Your task to perform on an android device: turn pop-ups on in chrome Image 0: 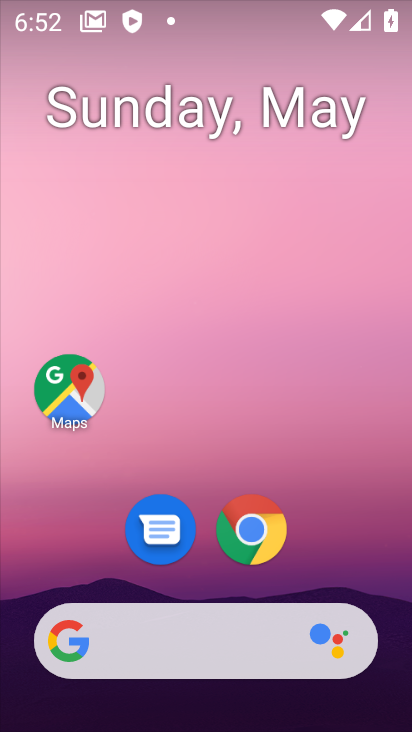
Step 0: click (261, 522)
Your task to perform on an android device: turn pop-ups on in chrome Image 1: 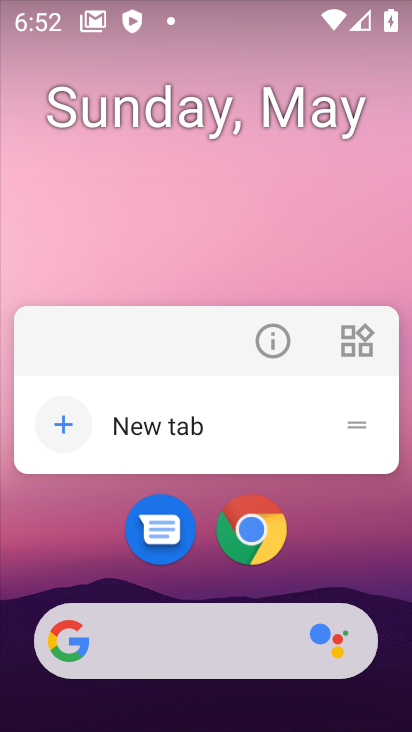
Step 1: click (253, 523)
Your task to perform on an android device: turn pop-ups on in chrome Image 2: 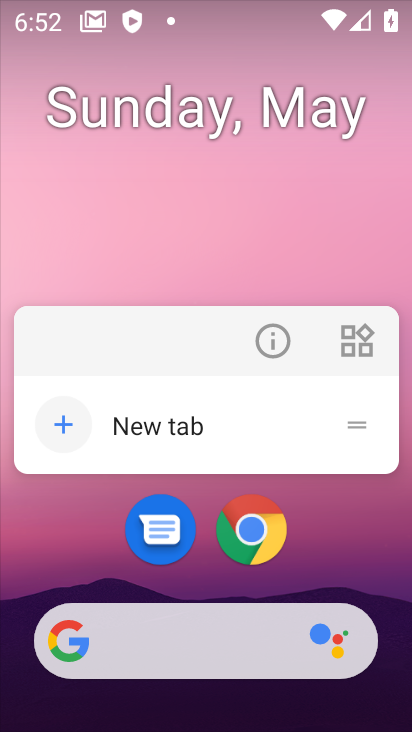
Step 2: click (290, 334)
Your task to perform on an android device: turn pop-ups on in chrome Image 3: 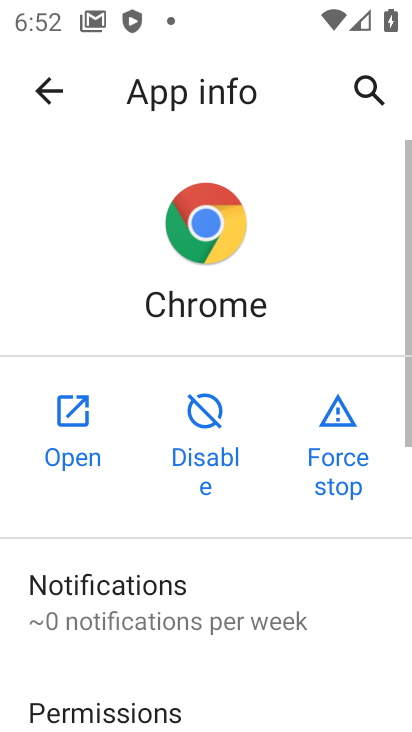
Step 3: click (87, 455)
Your task to perform on an android device: turn pop-ups on in chrome Image 4: 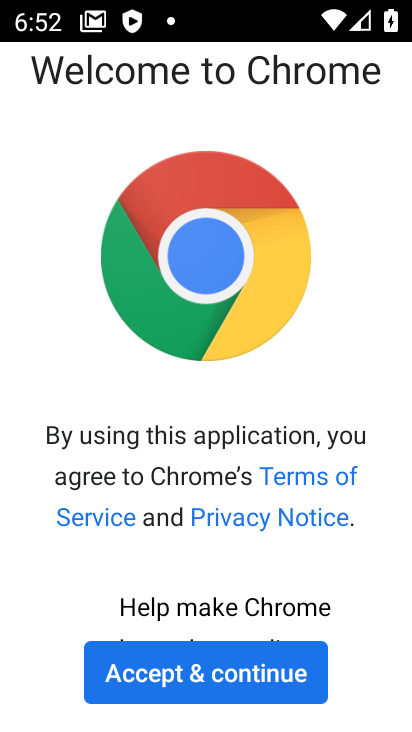
Step 4: click (185, 659)
Your task to perform on an android device: turn pop-ups on in chrome Image 5: 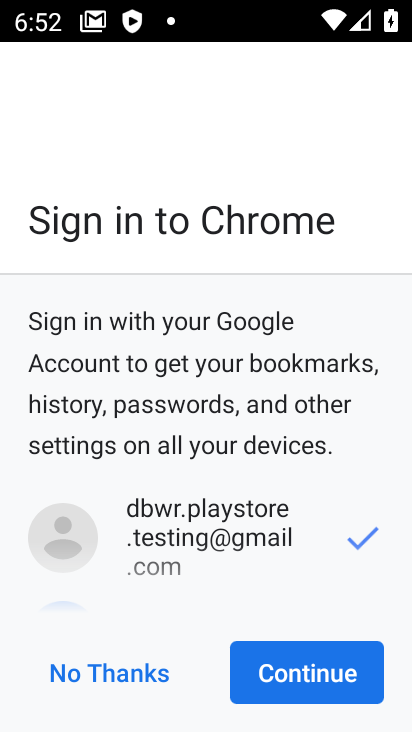
Step 5: click (345, 683)
Your task to perform on an android device: turn pop-ups on in chrome Image 6: 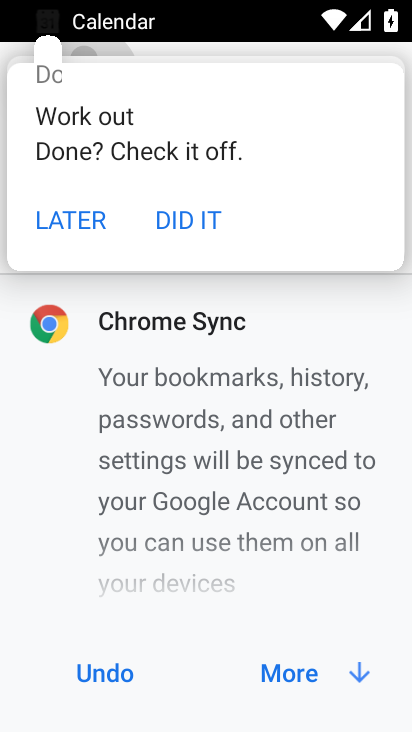
Step 6: click (292, 683)
Your task to perform on an android device: turn pop-ups on in chrome Image 7: 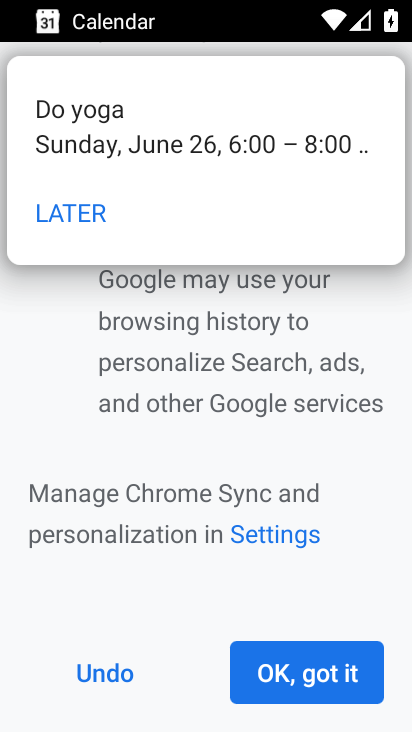
Step 7: click (292, 681)
Your task to perform on an android device: turn pop-ups on in chrome Image 8: 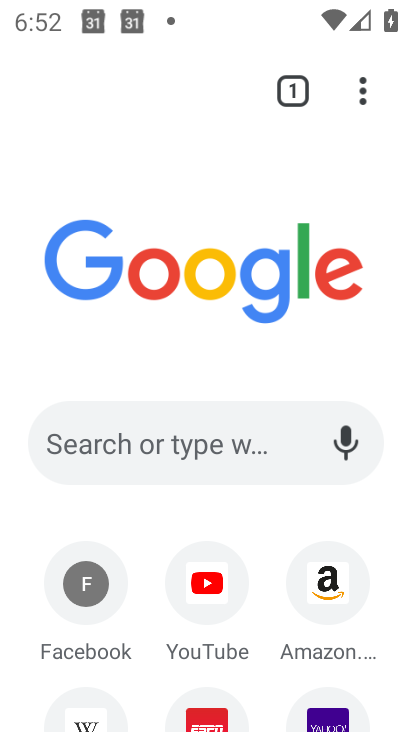
Step 8: click (367, 83)
Your task to perform on an android device: turn pop-ups on in chrome Image 9: 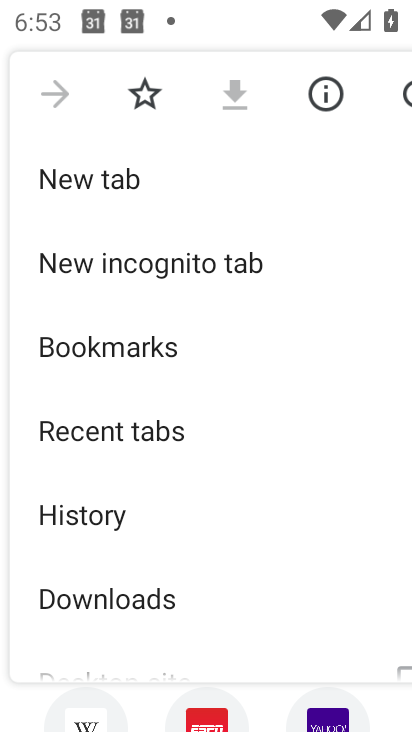
Step 9: drag from (195, 606) to (240, 347)
Your task to perform on an android device: turn pop-ups on in chrome Image 10: 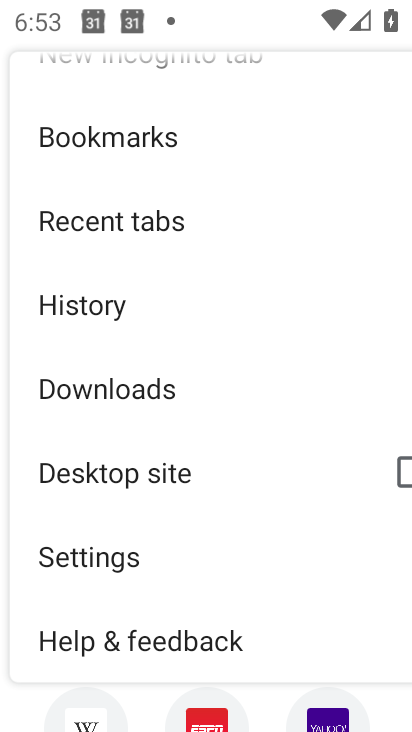
Step 10: click (108, 555)
Your task to perform on an android device: turn pop-ups on in chrome Image 11: 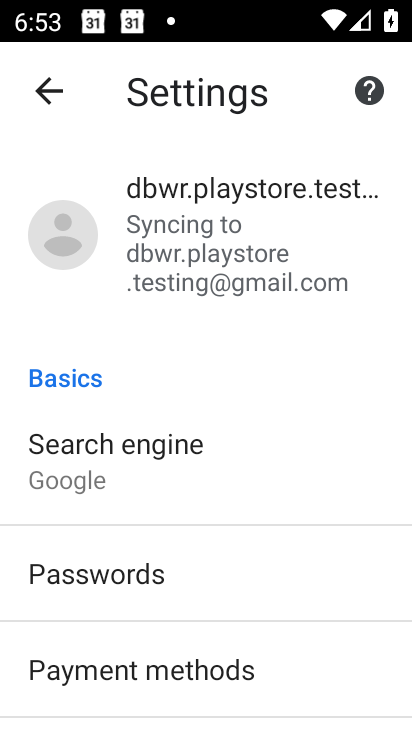
Step 11: drag from (96, 606) to (175, 240)
Your task to perform on an android device: turn pop-ups on in chrome Image 12: 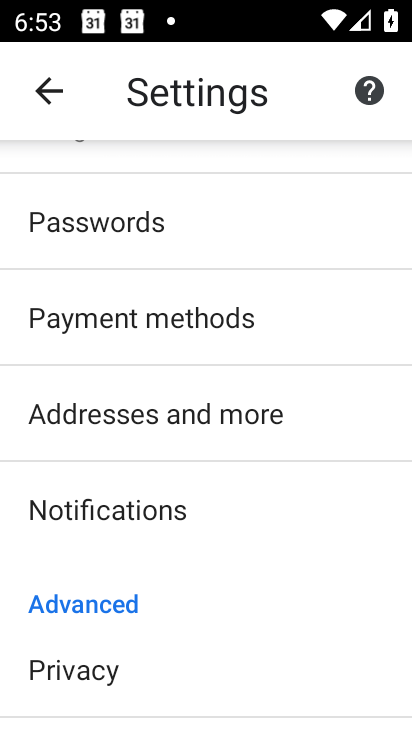
Step 12: drag from (129, 648) to (200, 290)
Your task to perform on an android device: turn pop-ups on in chrome Image 13: 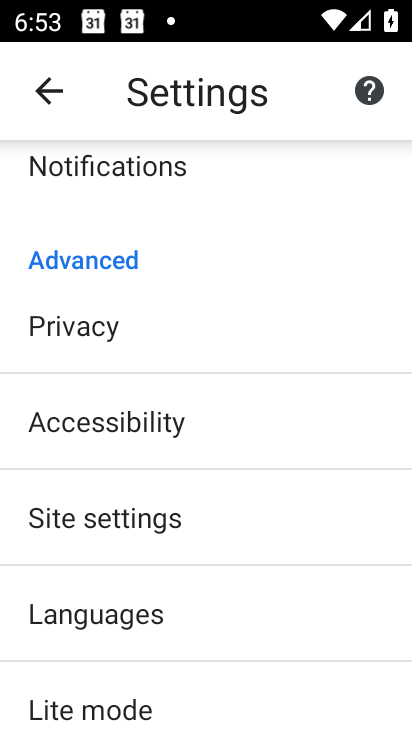
Step 13: click (123, 521)
Your task to perform on an android device: turn pop-ups on in chrome Image 14: 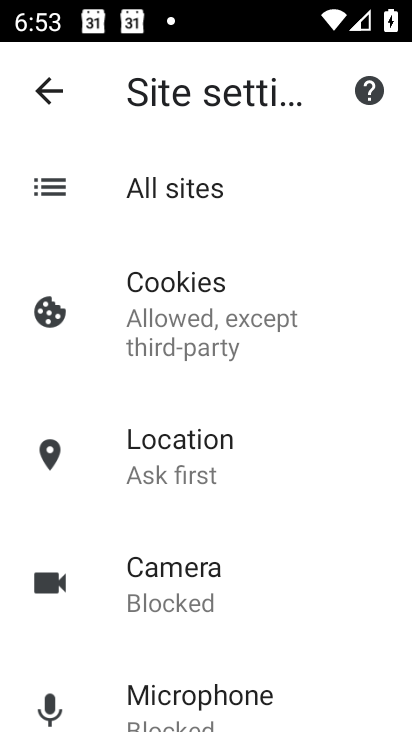
Step 14: drag from (187, 654) to (216, 317)
Your task to perform on an android device: turn pop-ups on in chrome Image 15: 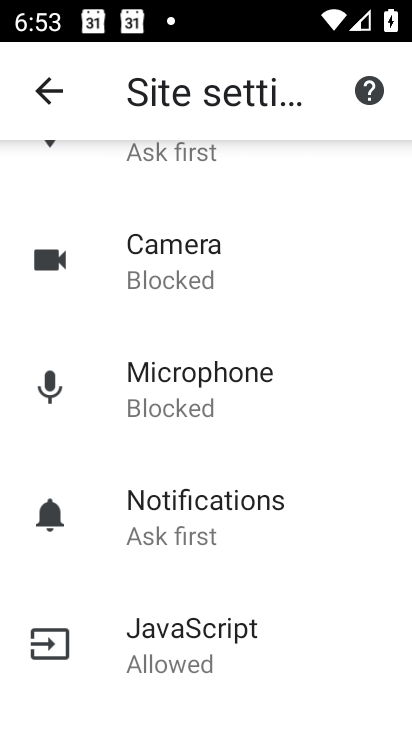
Step 15: drag from (251, 637) to (329, 272)
Your task to perform on an android device: turn pop-ups on in chrome Image 16: 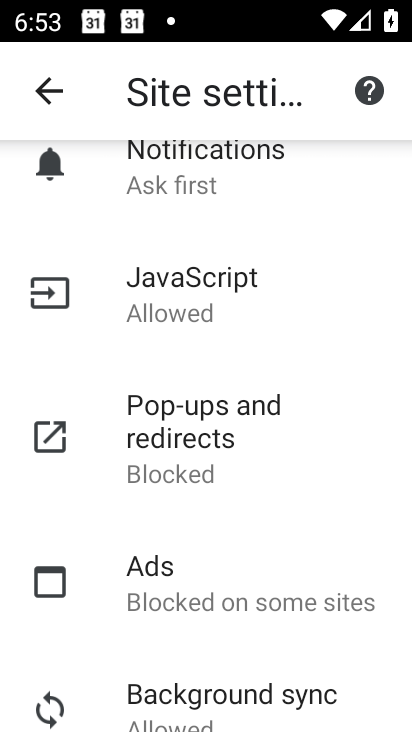
Step 16: click (216, 395)
Your task to perform on an android device: turn pop-ups on in chrome Image 17: 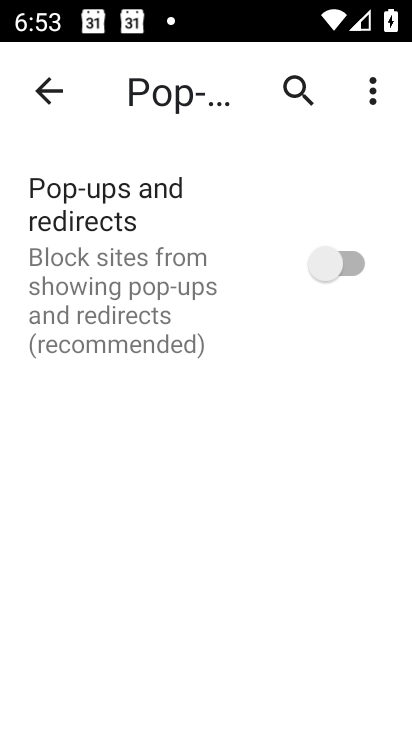
Step 17: click (347, 260)
Your task to perform on an android device: turn pop-ups on in chrome Image 18: 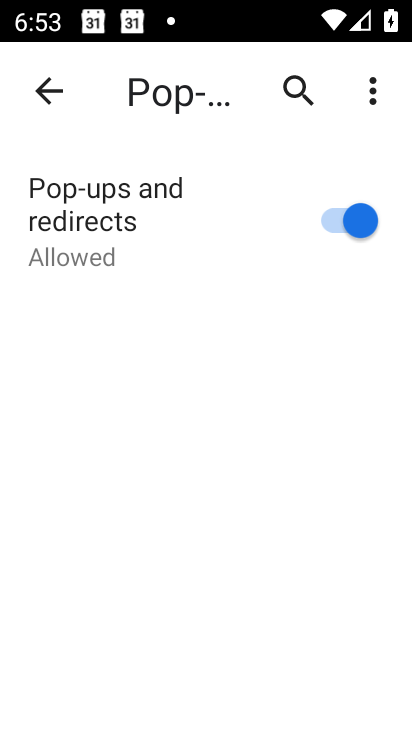
Step 18: task complete